Your task to perform on an android device: turn off sleep mode Image 0: 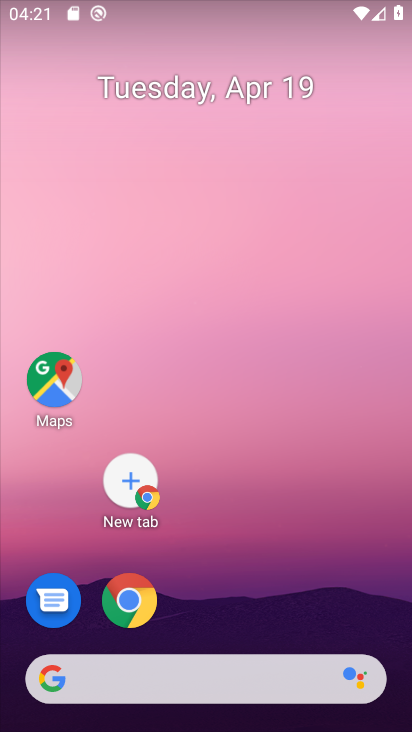
Step 0: drag from (231, 4) to (39, 646)
Your task to perform on an android device: turn off sleep mode Image 1: 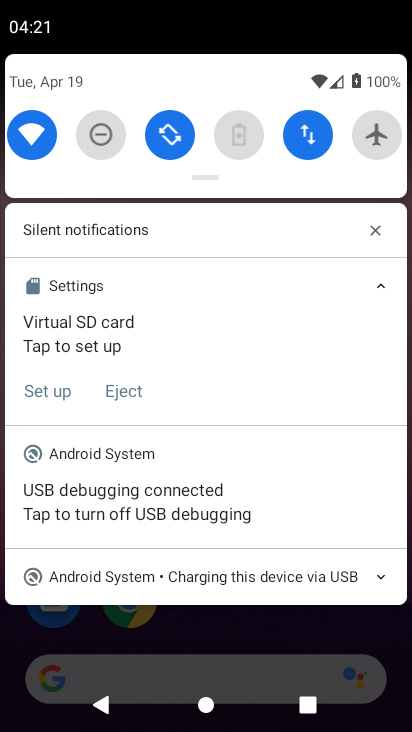
Step 1: drag from (192, 92) to (15, 538)
Your task to perform on an android device: turn off sleep mode Image 2: 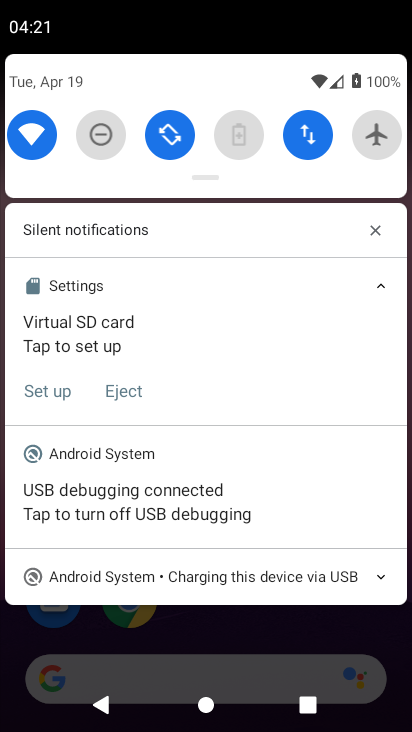
Step 2: drag from (194, 96) to (159, 587)
Your task to perform on an android device: turn off sleep mode Image 3: 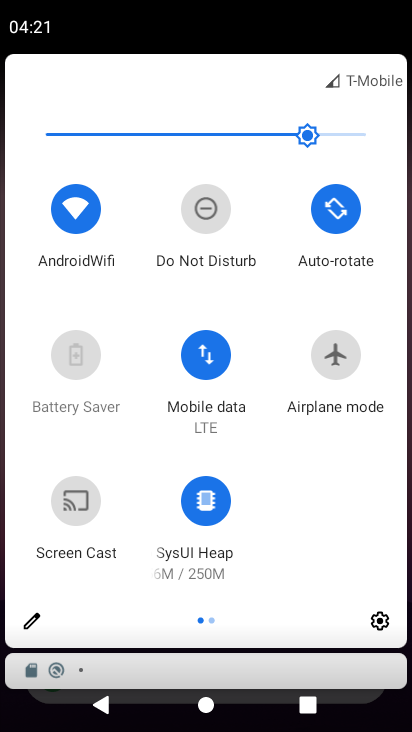
Step 3: click (381, 633)
Your task to perform on an android device: turn off sleep mode Image 4: 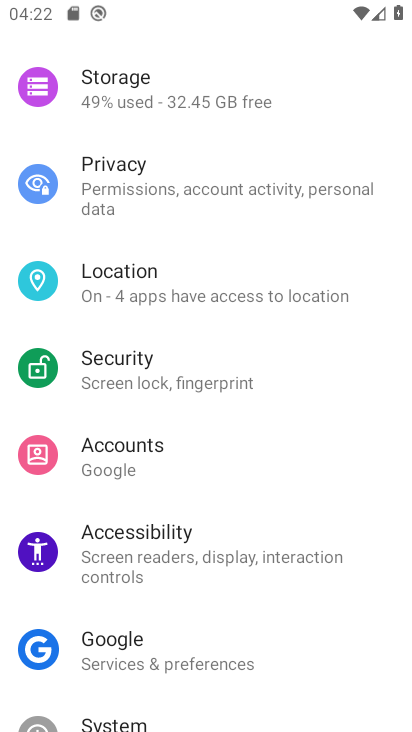
Step 4: task complete